Your task to perform on an android device: Search for the best rated 2021 Samsung Galaxy S21 Ultra on AliExpress Image 0: 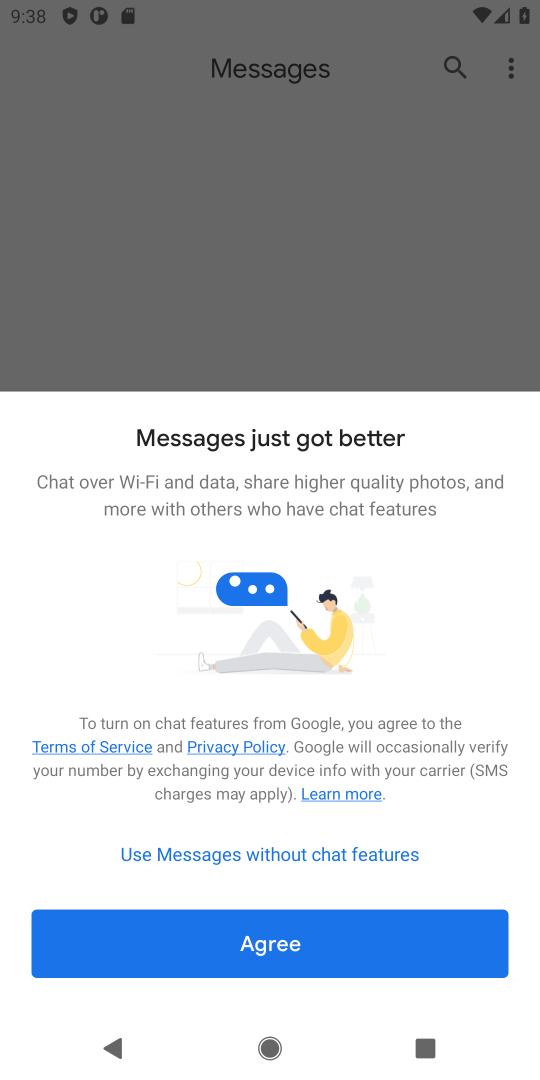
Step 0: press home button
Your task to perform on an android device: Search for the best rated 2021 Samsung Galaxy S21 Ultra on AliExpress Image 1: 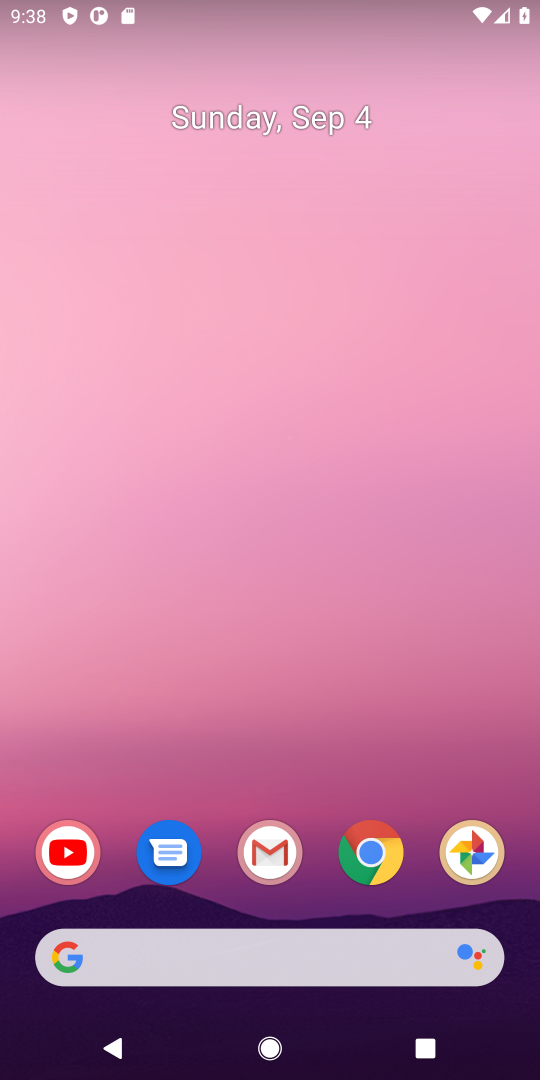
Step 1: drag from (414, 787) to (236, 18)
Your task to perform on an android device: Search for the best rated 2021 Samsung Galaxy S21 Ultra on AliExpress Image 2: 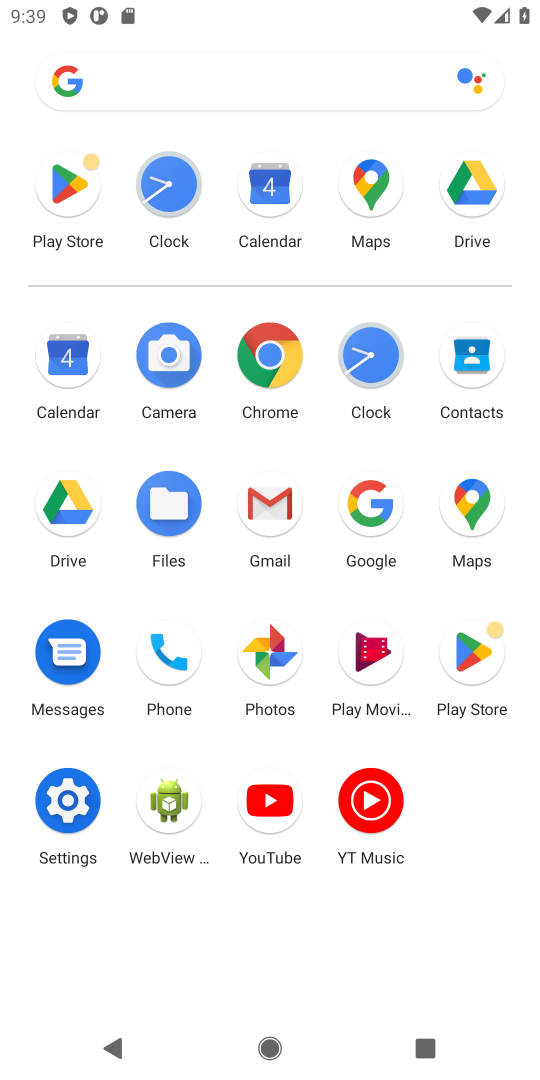
Step 2: click (373, 522)
Your task to perform on an android device: Search for the best rated 2021 Samsung Galaxy S21 Ultra on AliExpress Image 3: 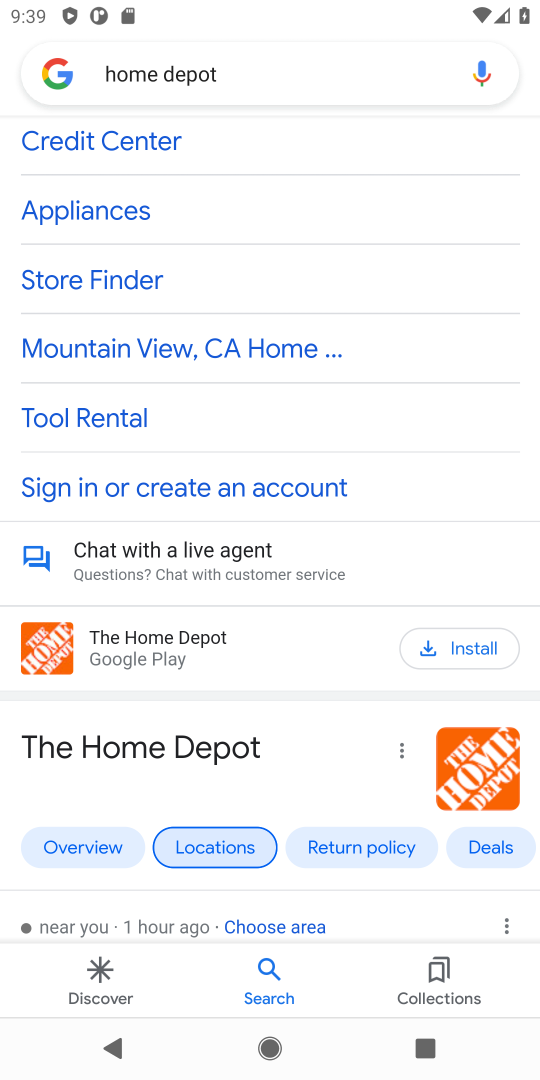
Step 3: press back button
Your task to perform on an android device: Search for the best rated 2021 Samsung Galaxy S21 Ultra on AliExpress Image 4: 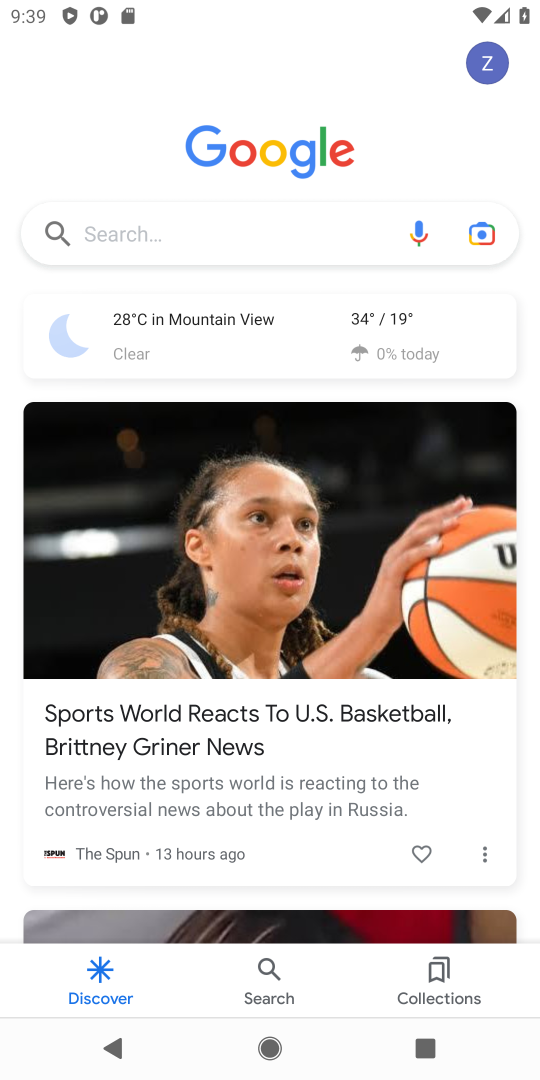
Step 4: click (106, 215)
Your task to perform on an android device: Search for the best rated 2021 Samsung Galaxy S21 Ultra on AliExpress Image 5: 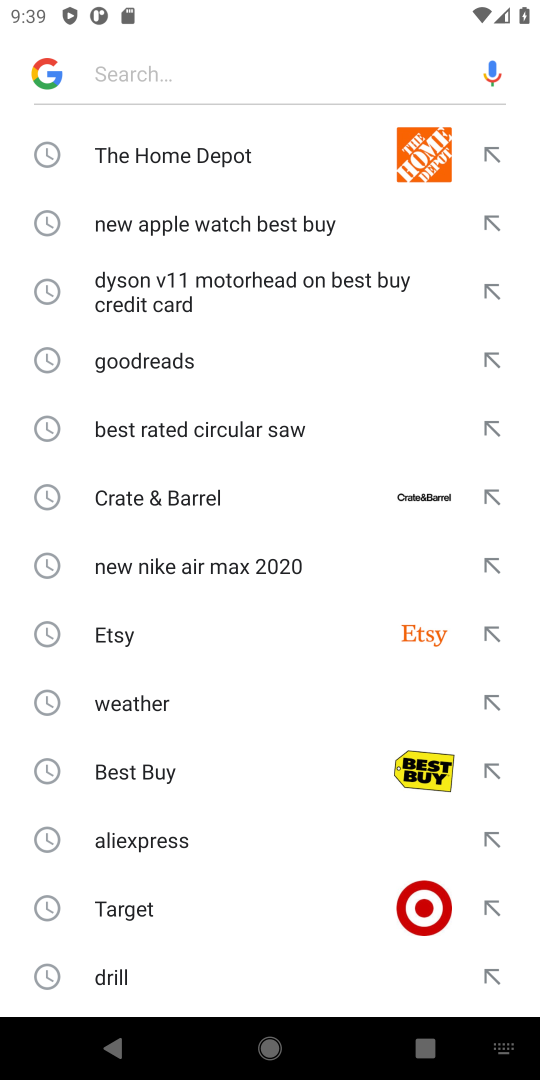
Step 5: click (159, 852)
Your task to perform on an android device: Search for the best rated 2021 Samsung Galaxy S21 Ultra on AliExpress Image 6: 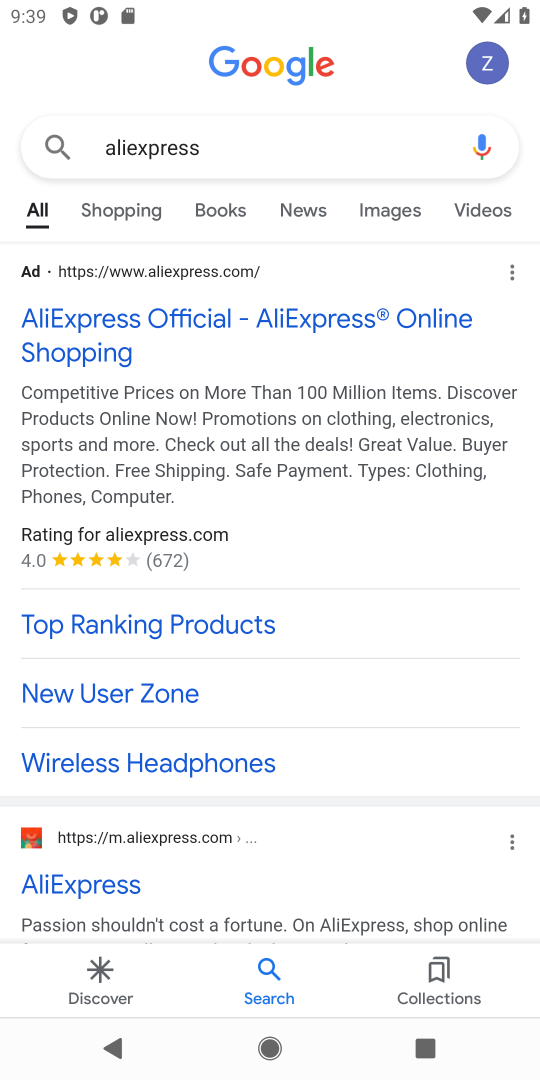
Step 6: click (287, 290)
Your task to perform on an android device: Search for the best rated 2021 Samsung Galaxy S21 Ultra on AliExpress Image 7: 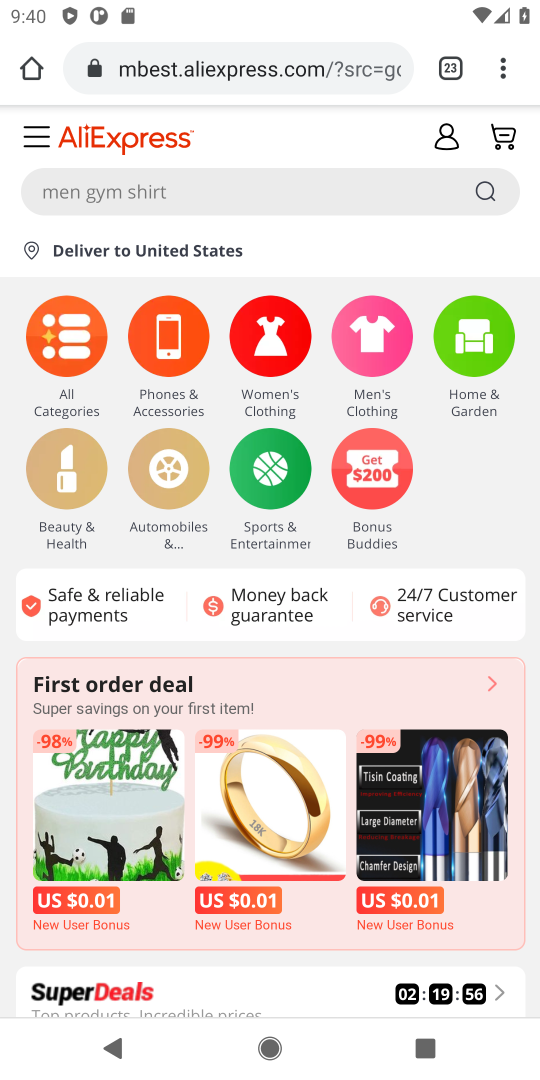
Step 7: click (169, 166)
Your task to perform on an android device: Search for the best rated 2021 Samsung Galaxy S21 Ultra on AliExpress Image 8: 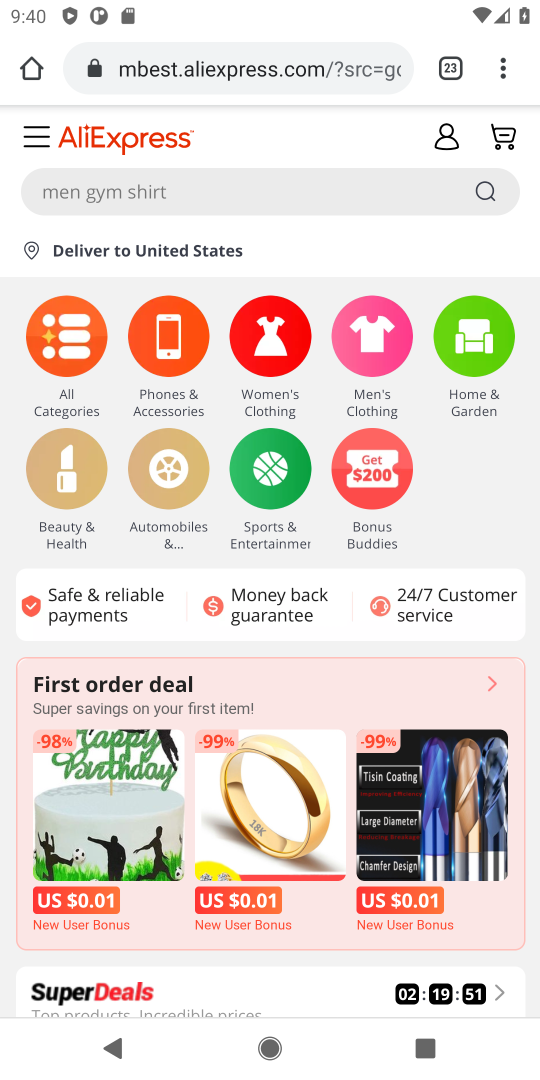
Step 8: click (153, 190)
Your task to perform on an android device: Search for the best rated 2021 Samsung Galaxy S21 Ultra on AliExpress Image 9: 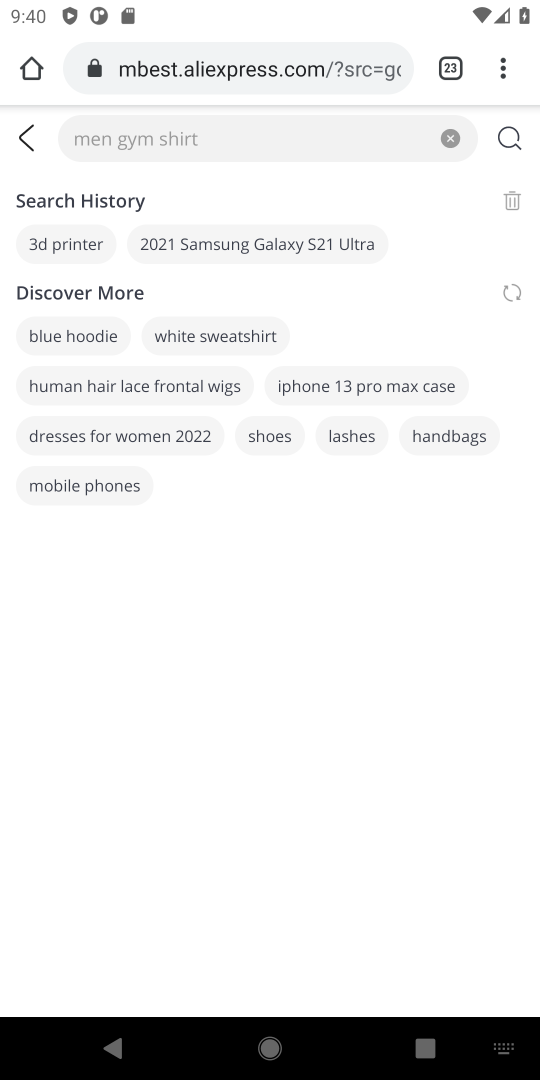
Step 9: type "2021 Samsung Galaxy S21 Ultra"
Your task to perform on an android device: Search for the best rated 2021 Samsung Galaxy S21 Ultra on AliExpress Image 10: 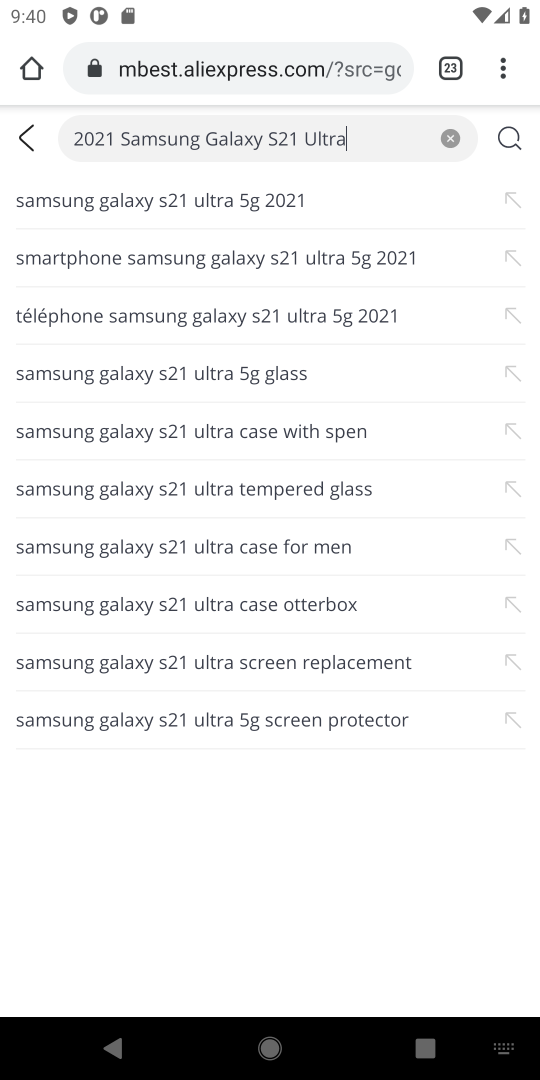
Step 10: click (163, 217)
Your task to perform on an android device: Search for the best rated 2021 Samsung Galaxy S21 Ultra on AliExpress Image 11: 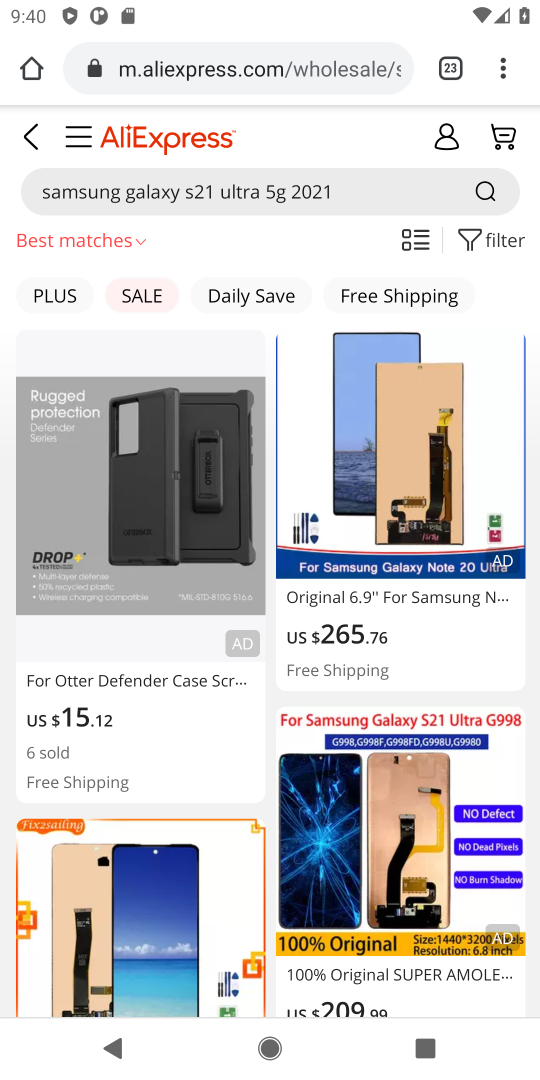
Step 11: task complete